Your task to perform on an android device: Open settings on Google Maps Image 0: 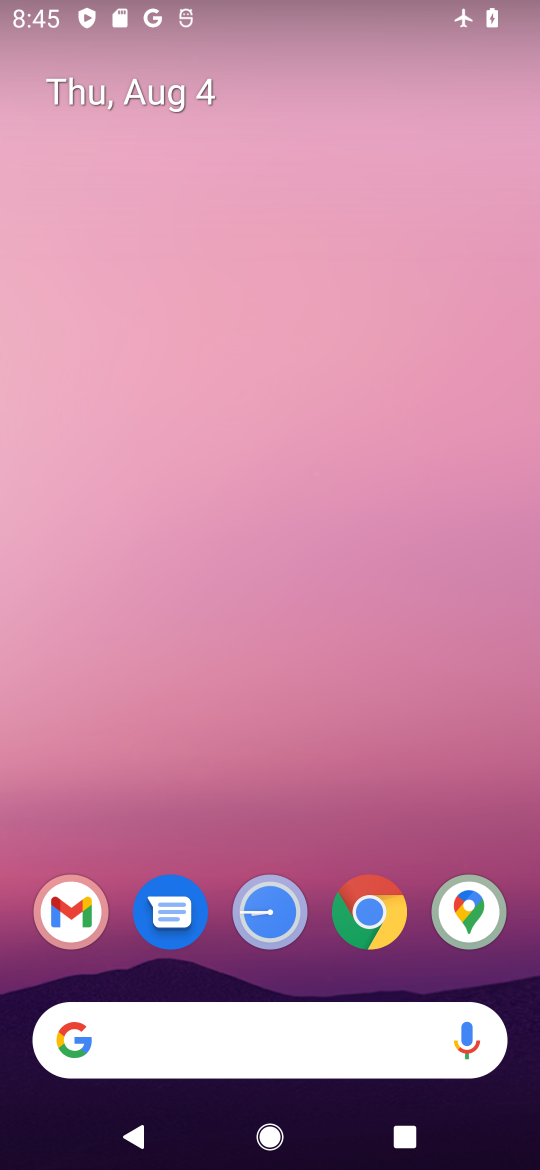
Step 0: click (464, 907)
Your task to perform on an android device: Open settings on Google Maps Image 1: 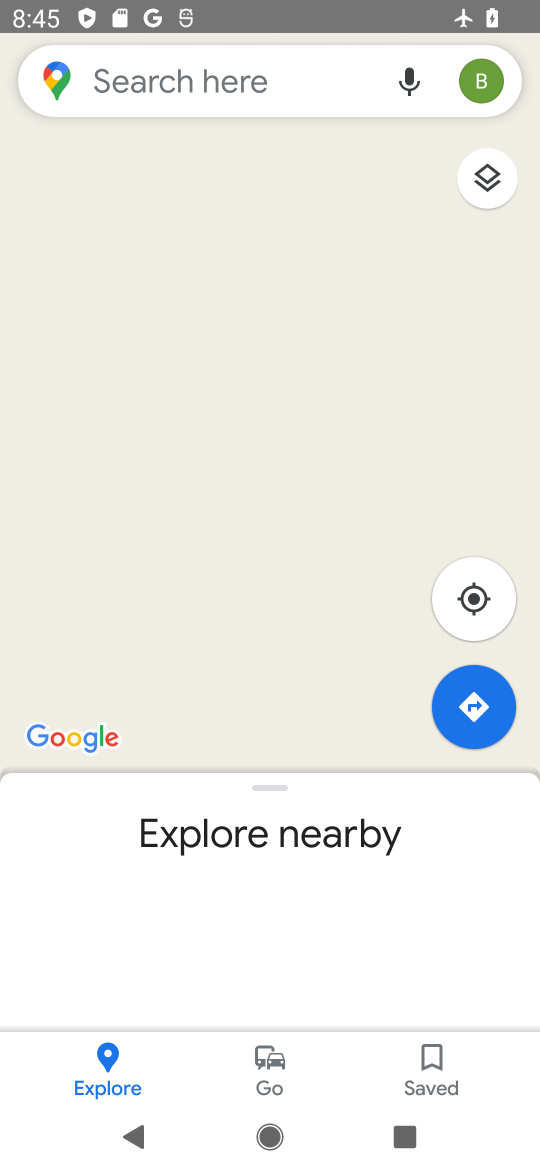
Step 1: click (521, 101)
Your task to perform on an android device: Open settings on Google Maps Image 2: 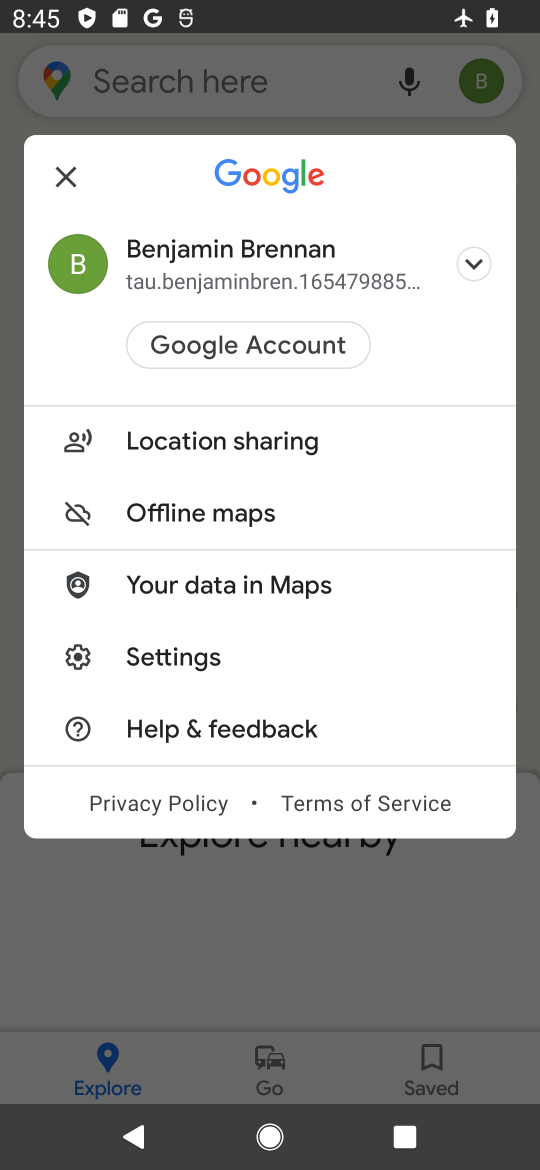
Step 2: click (194, 651)
Your task to perform on an android device: Open settings on Google Maps Image 3: 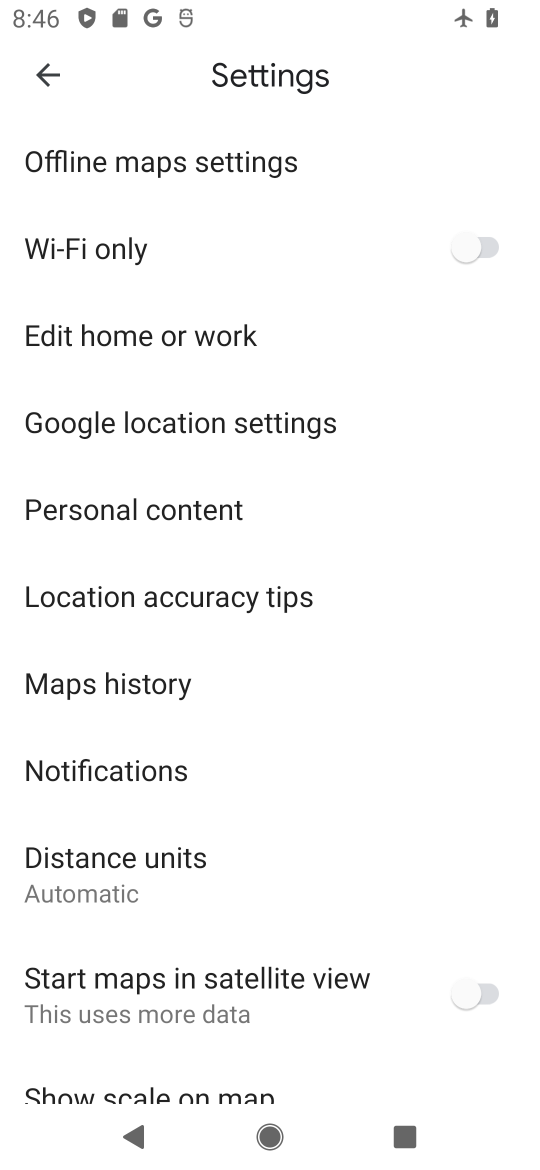
Step 3: task complete